Your task to perform on an android device: Go to CNN.com Image 0: 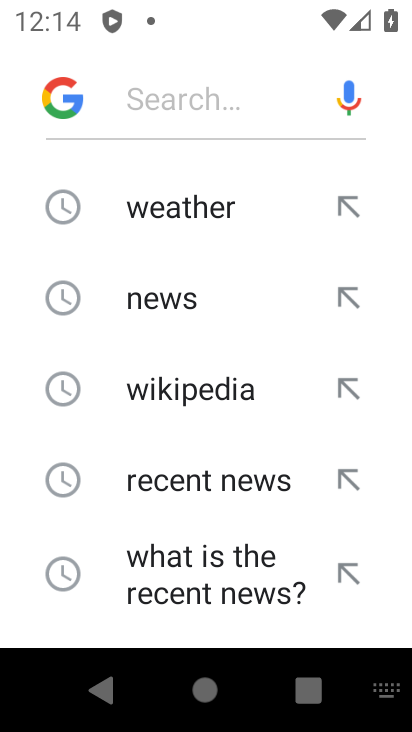
Step 0: press home button
Your task to perform on an android device: Go to CNN.com Image 1: 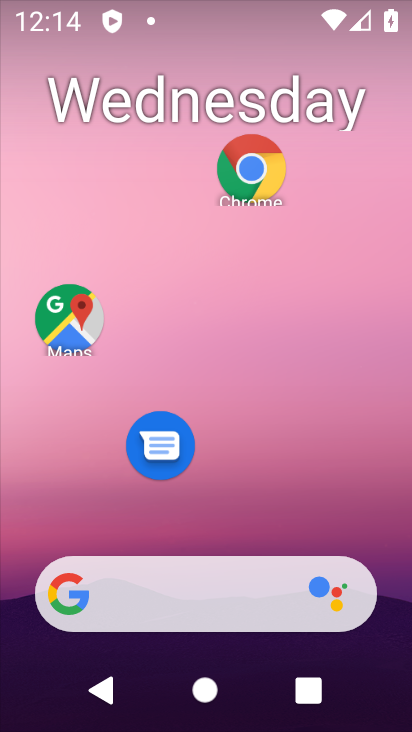
Step 1: drag from (199, 537) to (193, 85)
Your task to perform on an android device: Go to CNN.com Image 2: 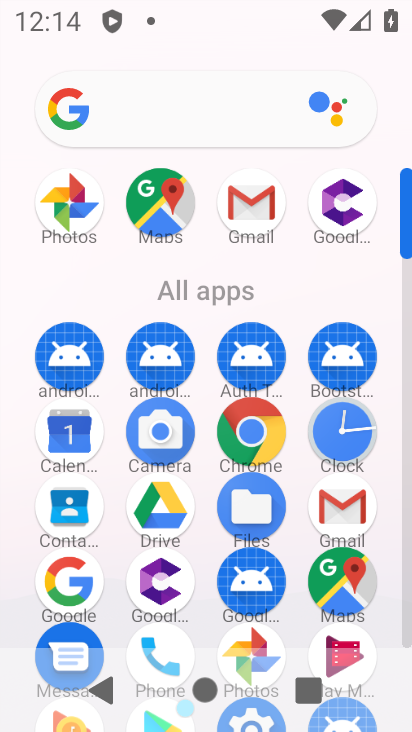
Step 2: click (249, 438)
Your task to perform on an android device: Go to CNN.com Image 3: 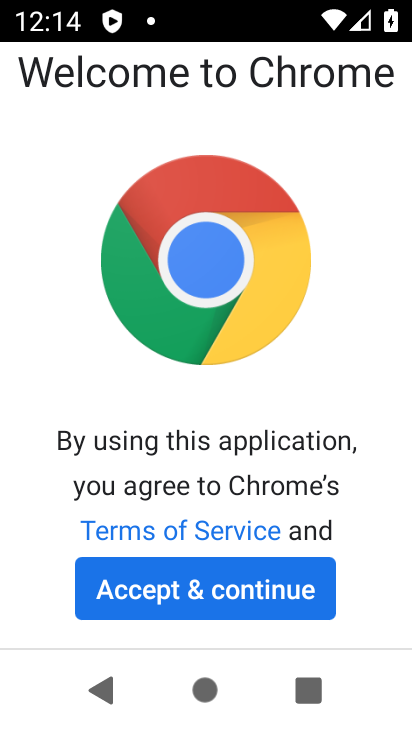
Step 3: click (201, 604)
Your task to perform on an android device: Go to CNN.com Image 4: 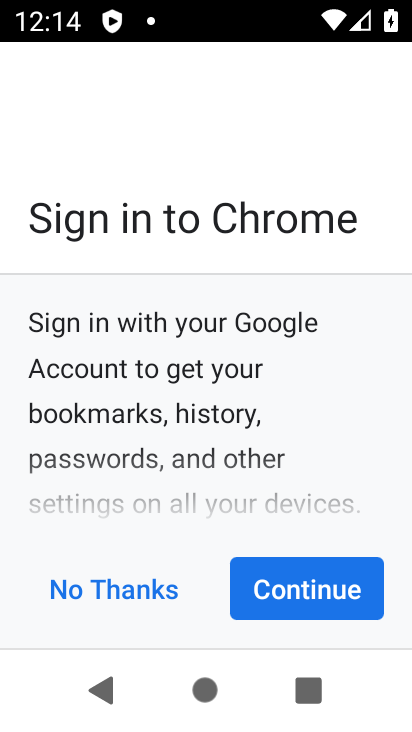
Step 4: click (288, 585)
Your task to perform on an android device: Go to CNN.com Image 5: 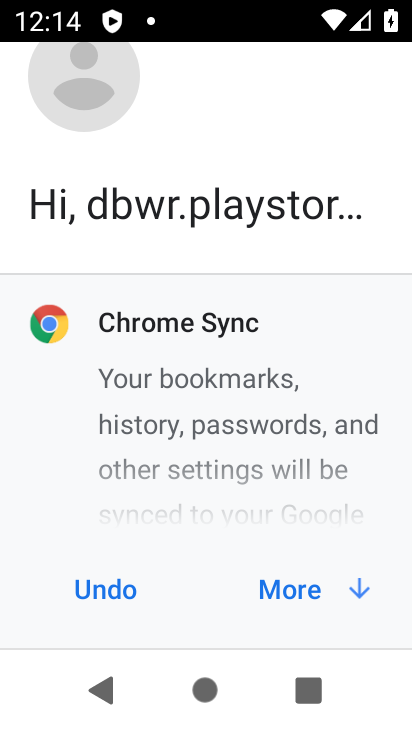
Step 5: click (273, 591)
Your task to perform on an android device: Go to CNN.com Image 6: 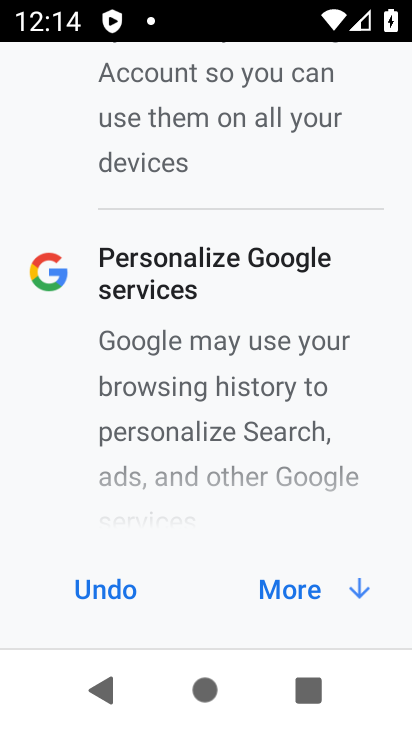
Step 6: click (296, 591)
Your task to perform on an android device: Go to CNN.com Image 7: 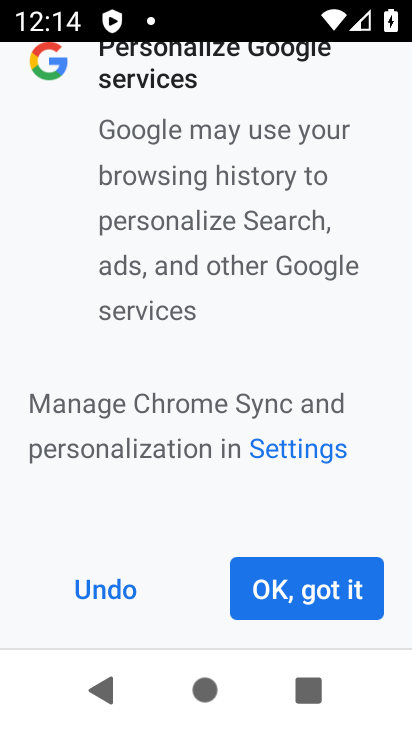
Step 7: click (325, 591)
Your task to perform on an android device: Go to CNN.com Image 8: 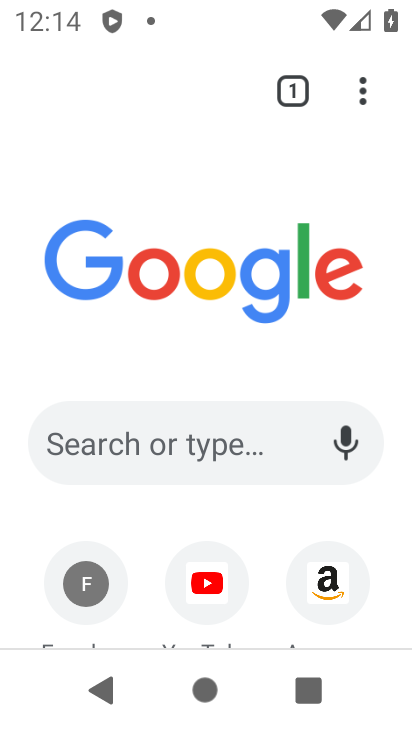
Step 8: click (176, 441)
Your task to perform on an android device: Go to CNN.com Image 9: 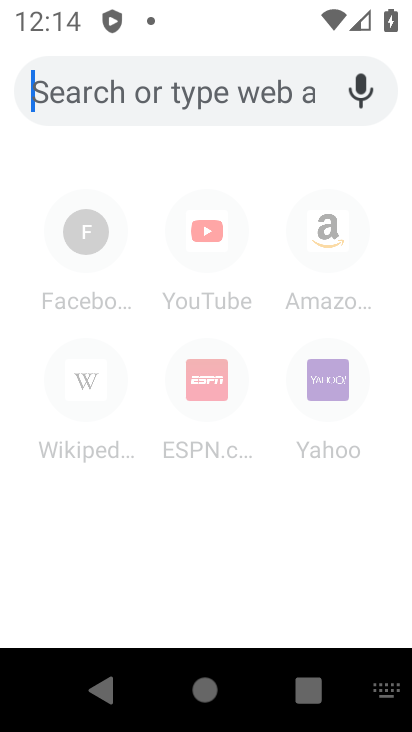
Step 9: type "www.cnn.com"
Your task to perform on an android device: Go to CNN.com Image 10: 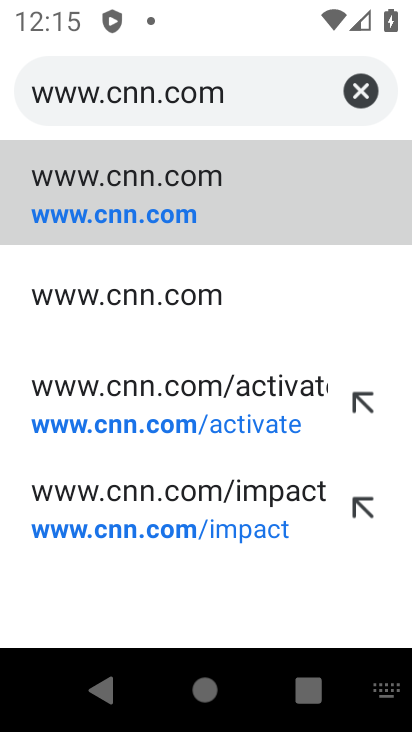
Step 10: click (116, 243)
Your task to perform on an android device: Go to CNN.com Image 11: 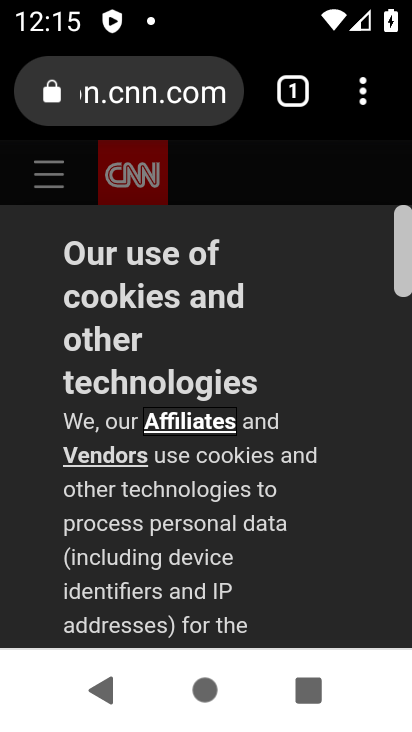
Step 11: task complete